Your task to perform on an android device: turn on javascript in the chrome app Image 0: 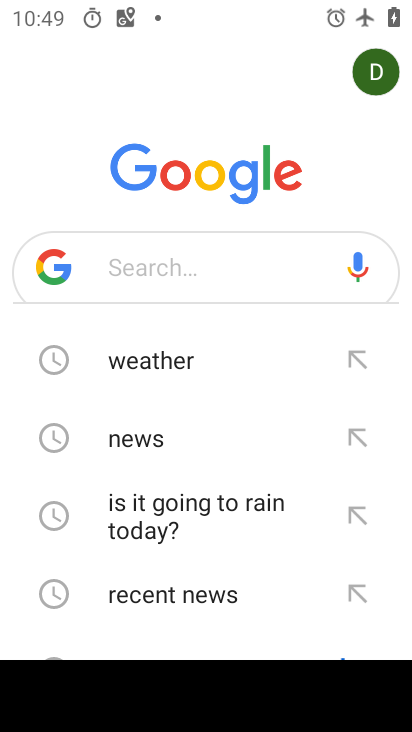
Step 0: press home button
Your task to perform on an android device: turn on javascript in the chrome app Image 1: 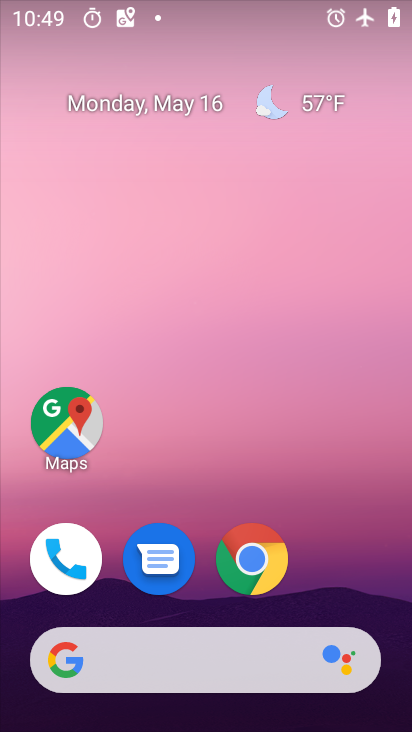
Step 1: click (256, 558)
Your task to perform on an android device: turn on javascript in the chrome app Image 2: 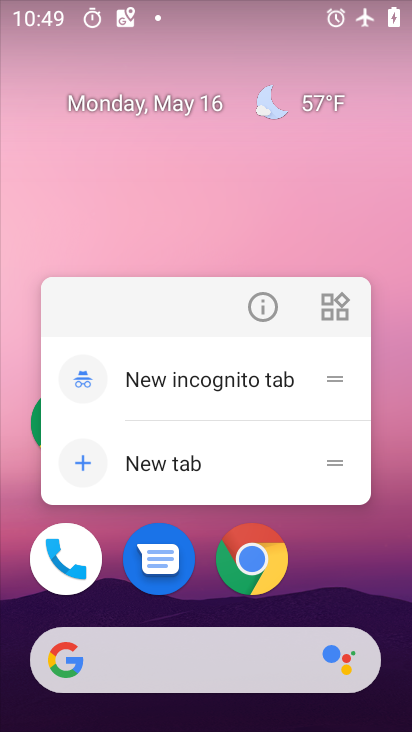
Step 2: click (252, 558)
Your task to perform on an android device: turn on javascript in the chrome app Image 3: 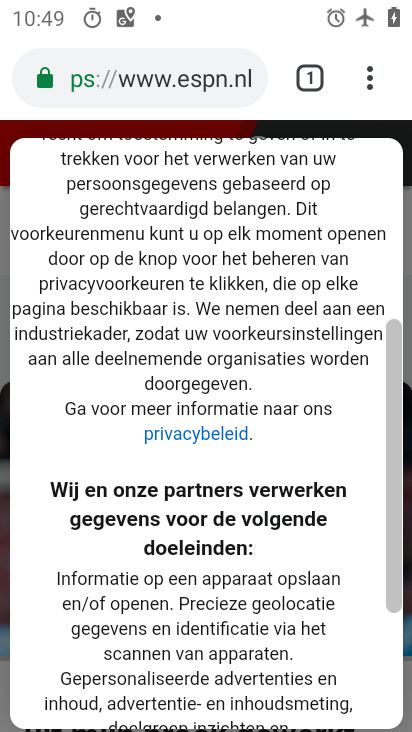
Step 3: drag from (363, 66) to (149, 625)
Your task to perform on an android device: turn on javascript in the chrome app Image 4: 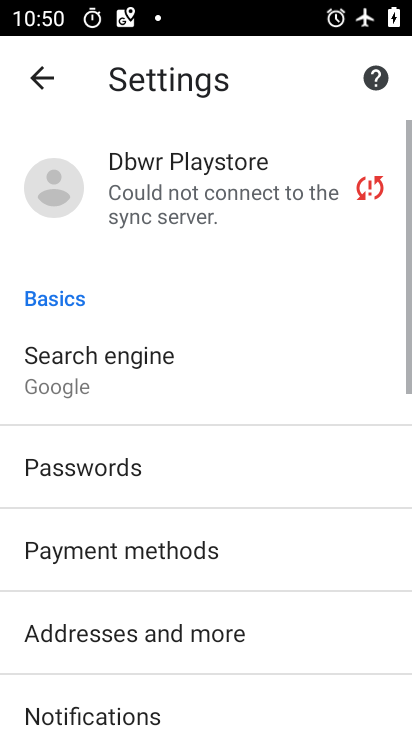
Step 4: drag from (149, 625) to (265, 215)
Your task to perform on an android device: turn on javascript in the chrome app Image 5: 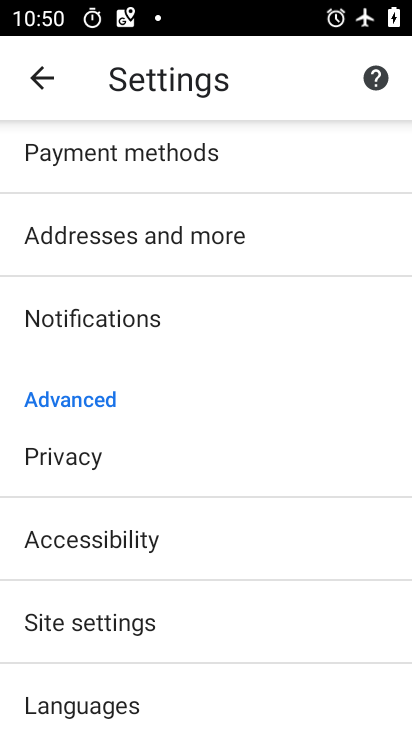
Step 5: click (148, 628)
Your task to perform on an android device: turn on javascript in the chrome app Image 6: 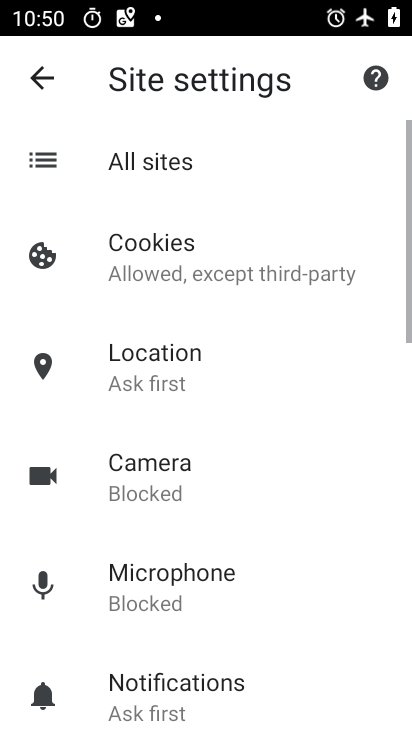
Step 6: drag from (200, 628) to (250, 235)
Your task to perform on an android device: turn on javascript in the chrome app Image 7: 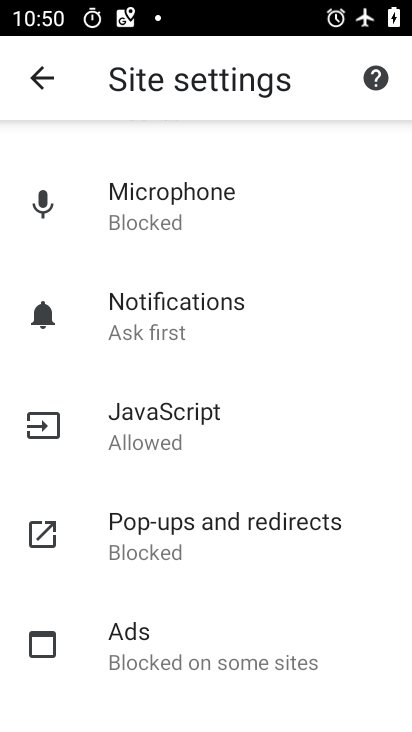
Step 7: click (131, 430)
Your task to perform on an android device: turn on javascript in the chrome app Image 8: 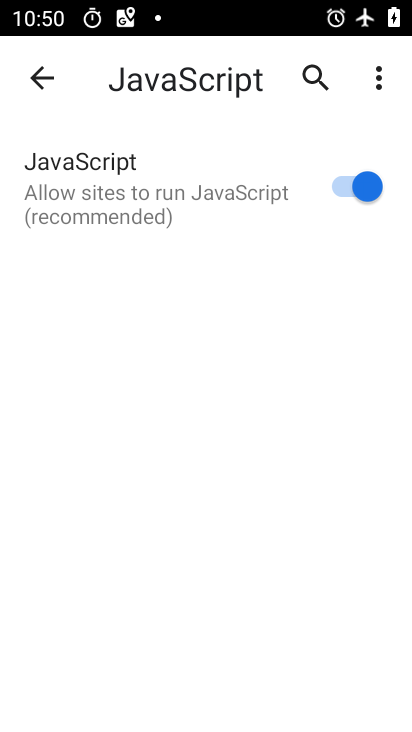
Step 8: task complete